Your task to perform on an android device: Turn on the flashlight Image 0: 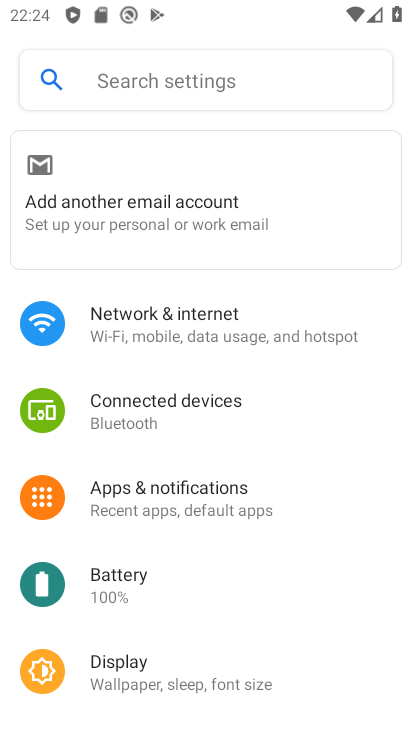
Step 0: drag from (183, 651) to (144, 163)
Your task to perform on an android device: Turn on the flashlight Image 1: 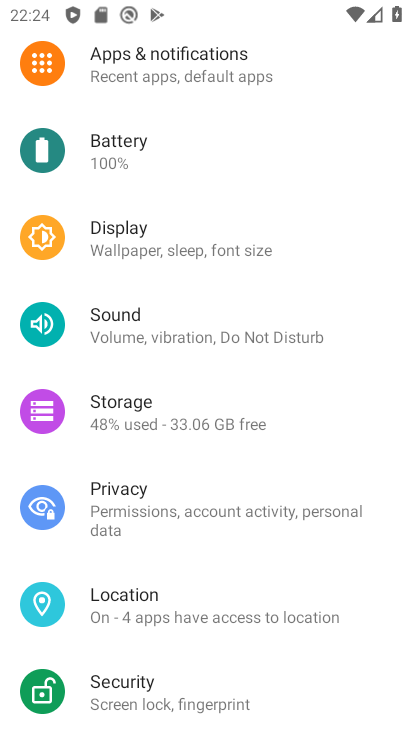
Step 1: task complete